Your task to perform on an android device: turn pop-ups off in chrome Image 0: 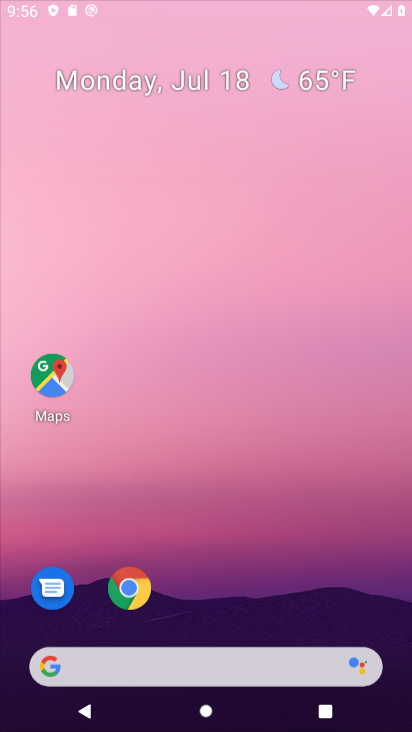
Step 0: press home button
Your task to perform on an android device: turn pop-ups off in chrome Image 1: 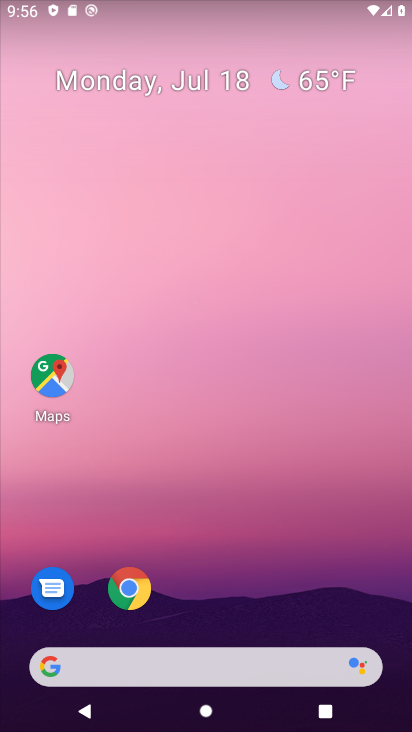
Step 1: drag from (249, 618) to (321, 109)
Your task to perform on an android device: turn pop-ups off in chrome Image 2: 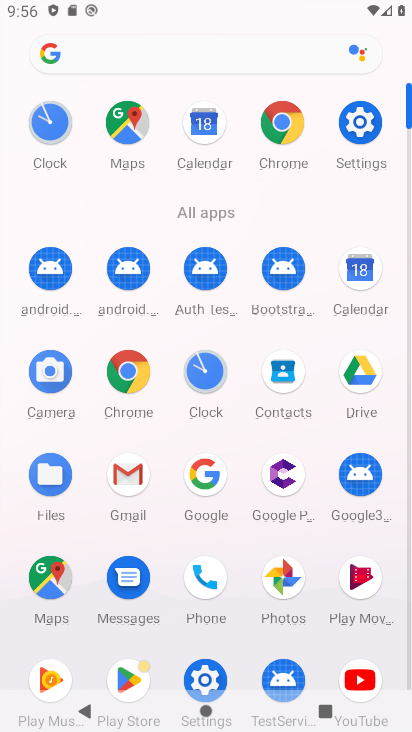
Step 2: click (288, 121)
Your task to perform on an android device: turn pop-ups off in chrome Image 3: 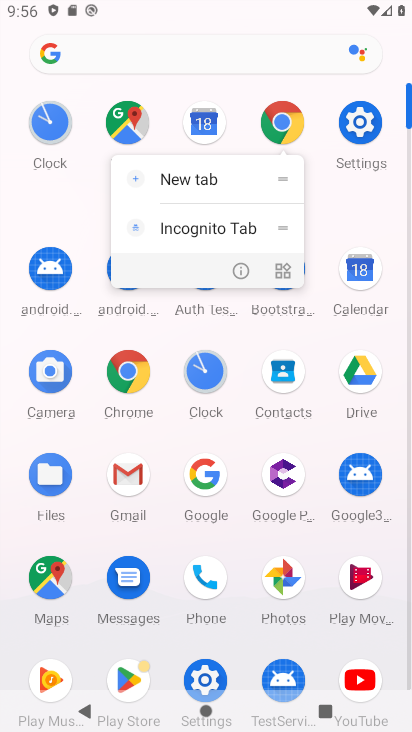
Step 3: click (286, 126)
Your task to perform on an android device: turn pop-ups off in chrome Image 4: 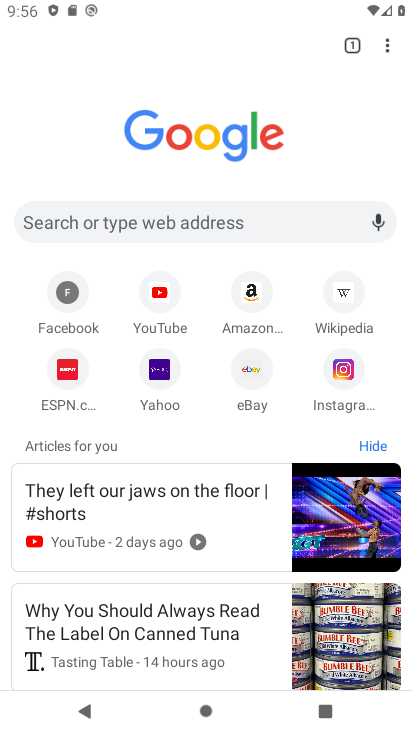
Step 4: drag from (393, 46) to (201, 383)
Your task to perform on an android device: turn pop-ups off in chrome Image 5: 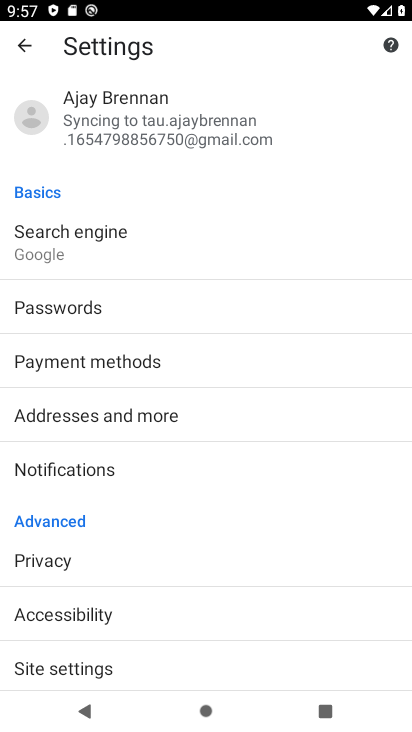
Step 5: click (53, 673)
Your task to perform on an android device: turn pop-ups off in chrome Image 6: 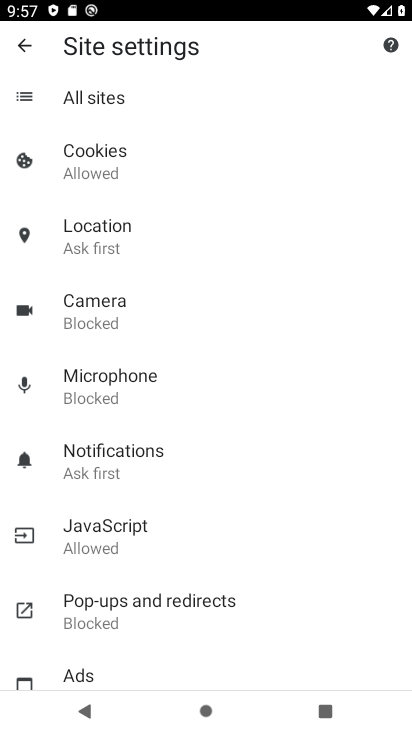
Step 6: drag from (284, 497) to (300, 221)
Your task to perform on an android device: turn pop-ups off in chrome Image 7: 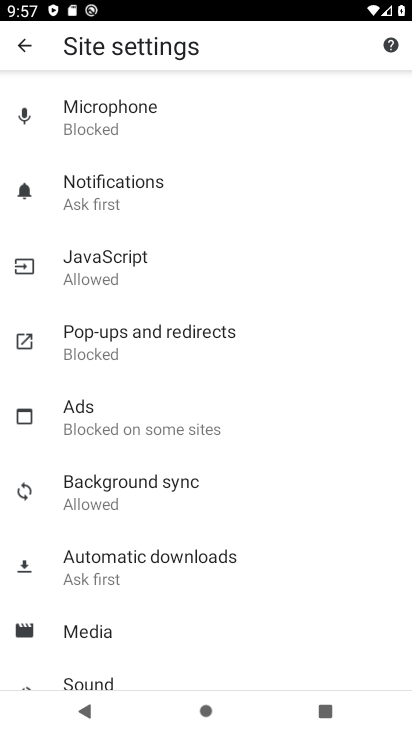
Step 7: click (121, 336)
Your task to perform on an android device: turn pop-ups off in chrome Image 8: 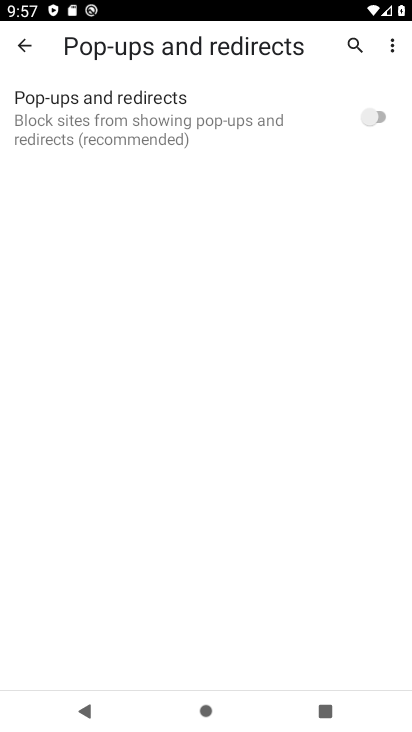
Step 8: task complete